Your task to perform on an android device: check android version Image 0: 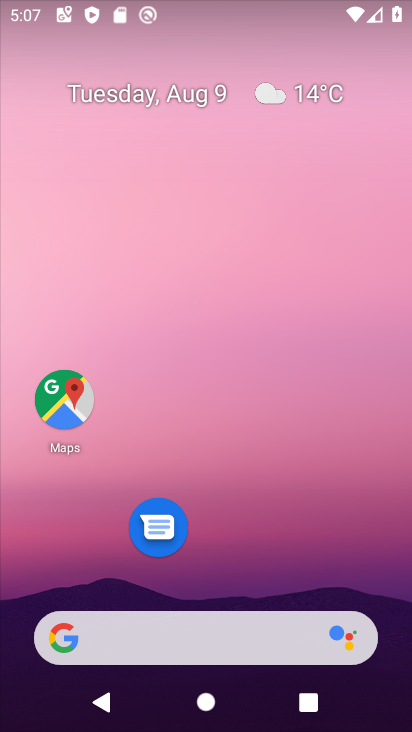
Step 0: drag from (212, 569) to (239, 57)
Your task to perform on an android device: check android version Image 1: 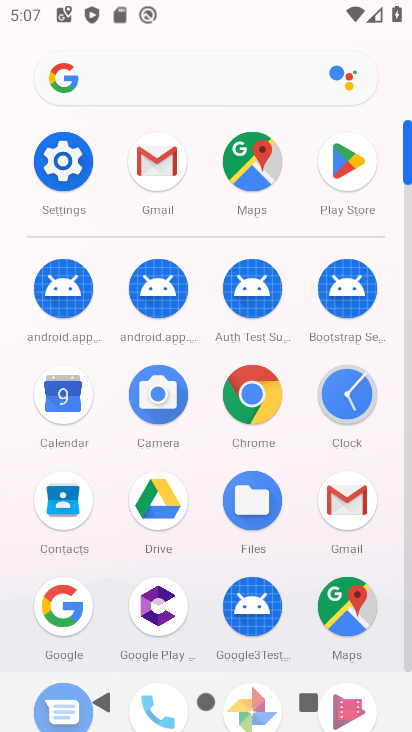
Step 1: click (74, 168)
Your task to perform on an android device: check android version Image 2: 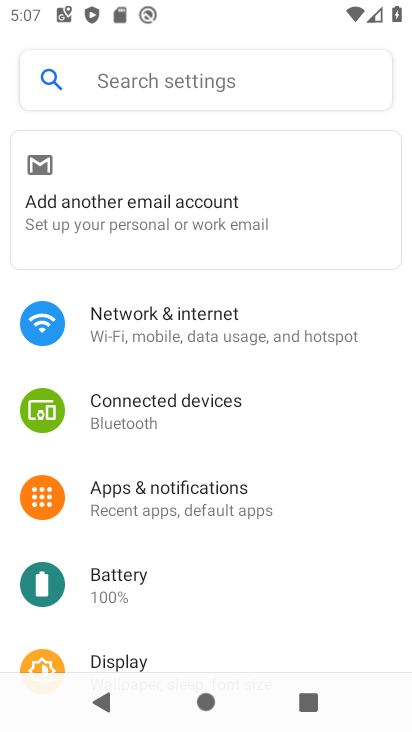
Step 2: drag from (169, 638) to (206, 142)
Your task to perform on an android device: check android version Image 3: 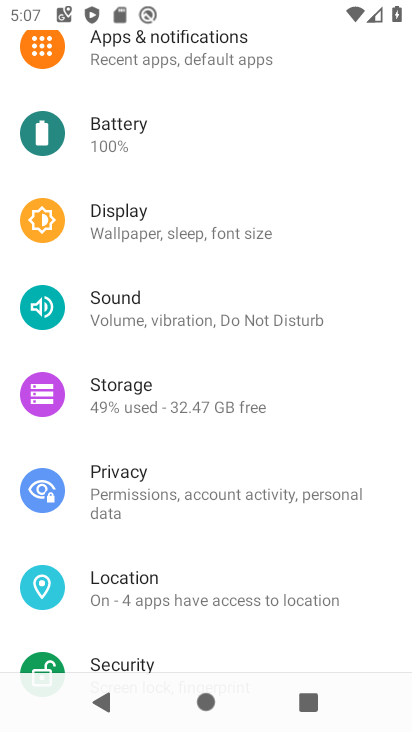
Step 3: drag from (105, 624) to (154, 210)
Your task to perform on an android device: check android version Image 4: 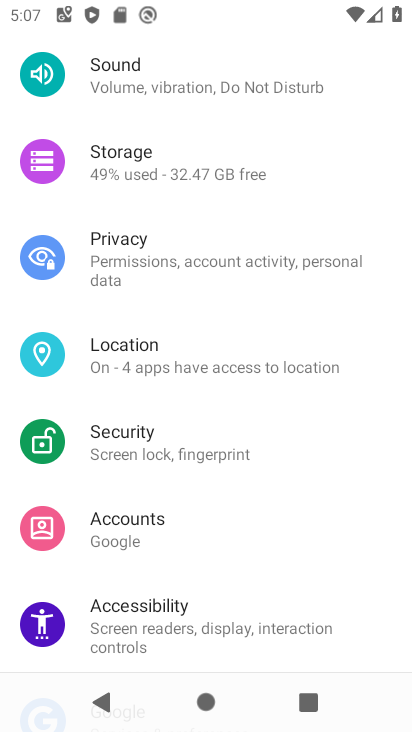
Step 4: drag from (196, 551) to (207, 134)
Your task to perform on an android device: check android version Image 5: 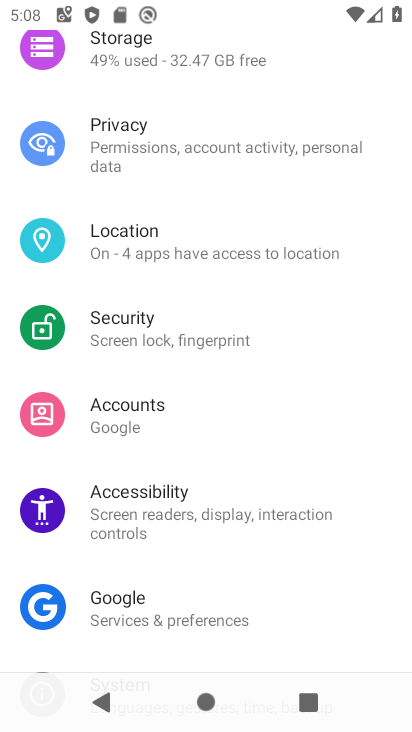
Step 5: drag from (138, 644) to (232, 110)
Your task to perform on an android device: check android version Image 6: 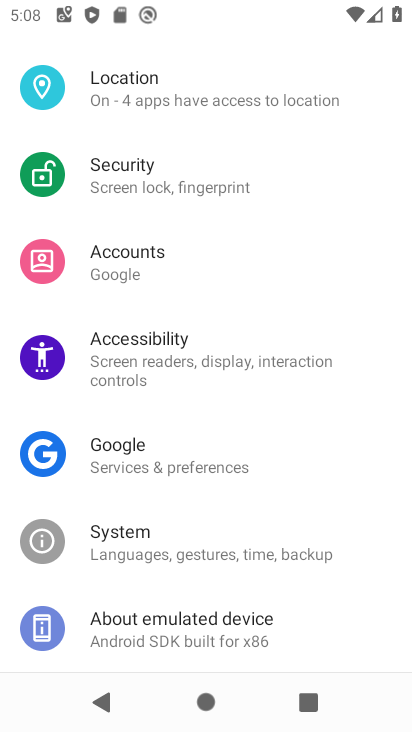
Step 6: click (99, 636)
Your task to perform on an android device: check android version Image 7: 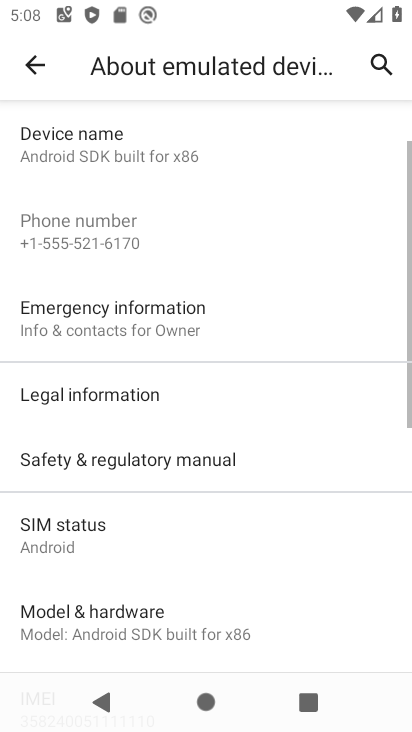
Step 7: drag from (160, 525) to (158, 217)
Your task to perform on an android device: check android version Image 8: 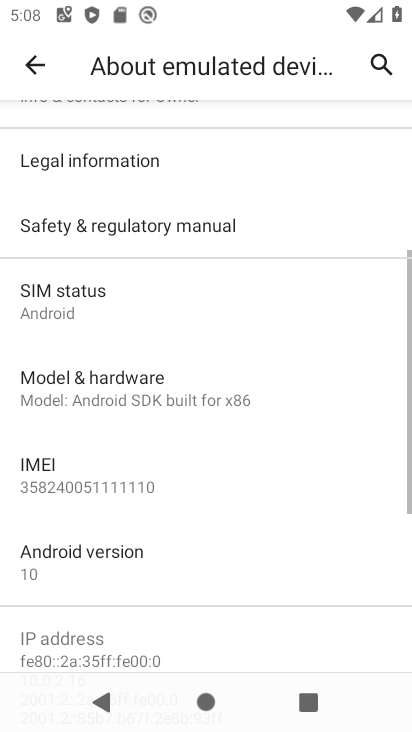
Step 8: click (127, 556)
Your task to perform on an android device: check android version Image 9: 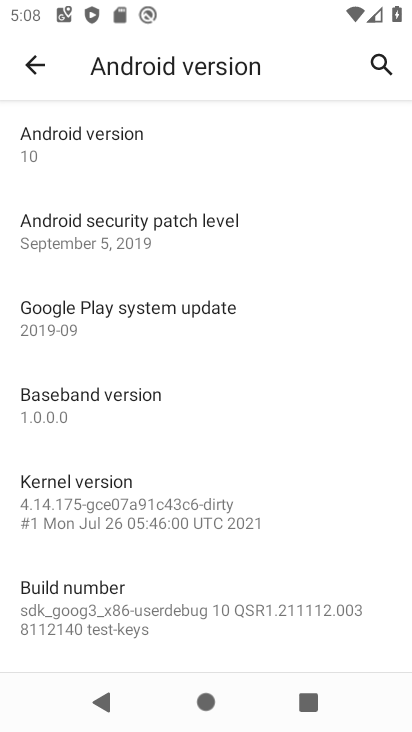
Step 9: task complete